Your task to perform on an android device: open wifi settings Image 0: 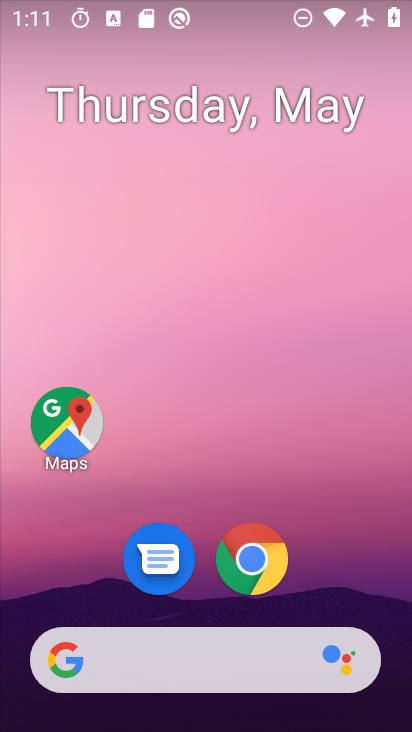
Step 0: drag from (319, 370) to (322, 138)
Your task to perform on an android device: open wifi settings Image 1: 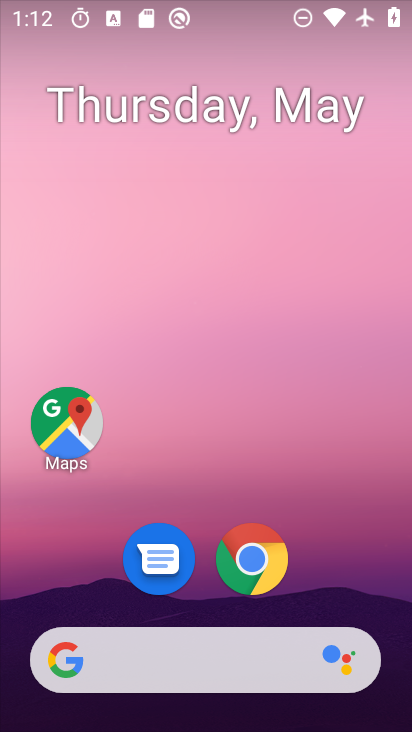
Step 1: drag from (261, 585) to (264, 57)
Your task to perform on an android device: open wifi settings Image 2: 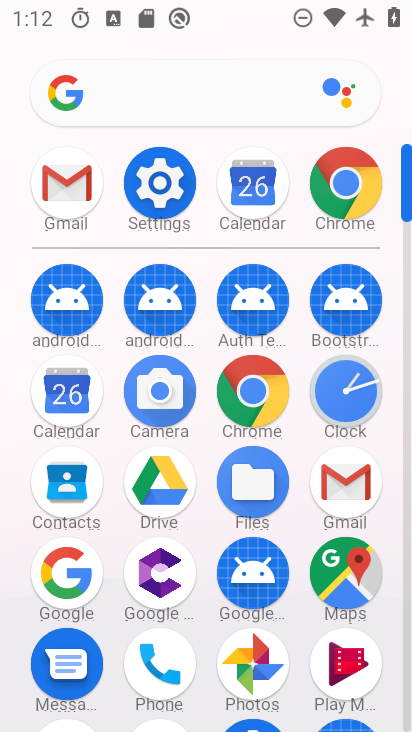
Step 2: click (179, 207)
Your task to perform on an android device: open wifi settings Image 3: 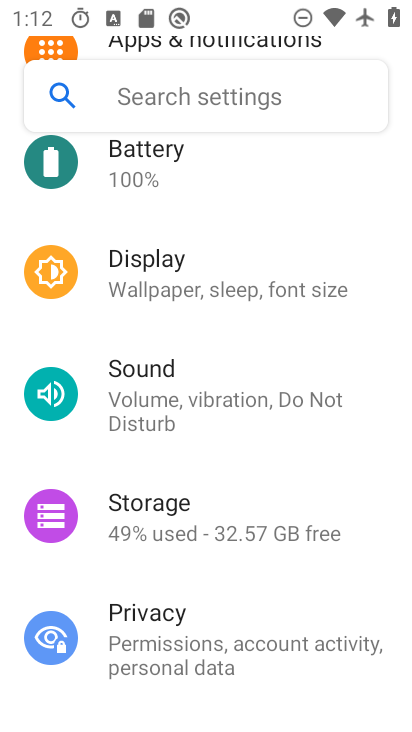
Step 3: drag from (179, 207) to (144, 536)
Your task to perform on an android device: open wifi settings Image 4: 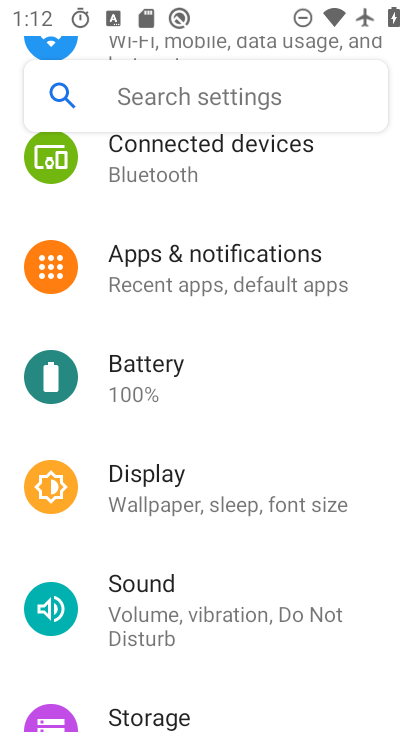
Step 4: drag from (276, 251) to (214, 721)
Your task to perform on an android device: open wifi settings Image 5: 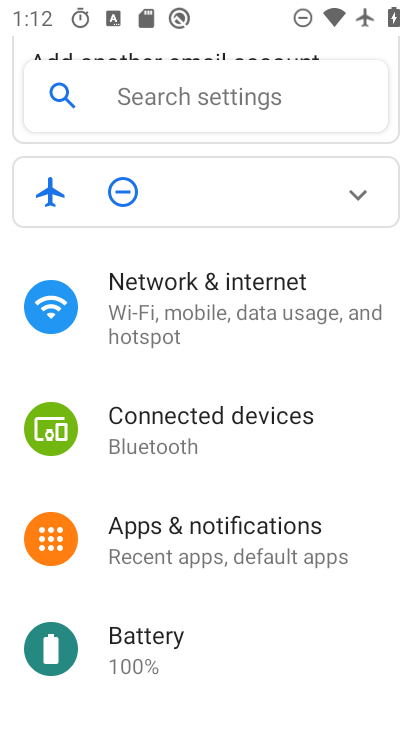
Step 5: click (288, 332)
Your task to perform on an android device: open wifi settings Image 6: 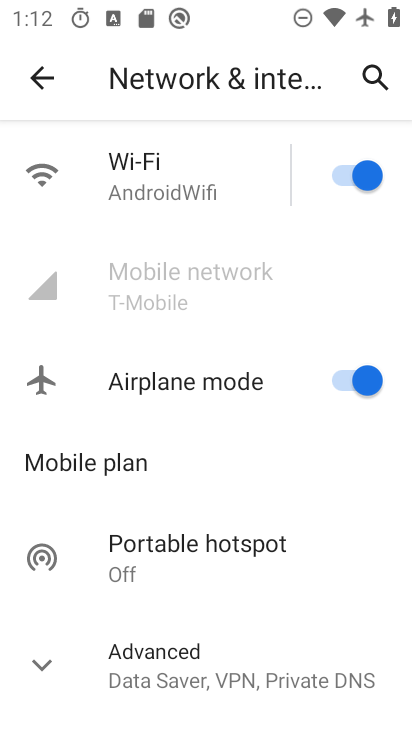
Step 6: click (174, 189)
Your task to perform on an android device: open wifi settings Image 7: 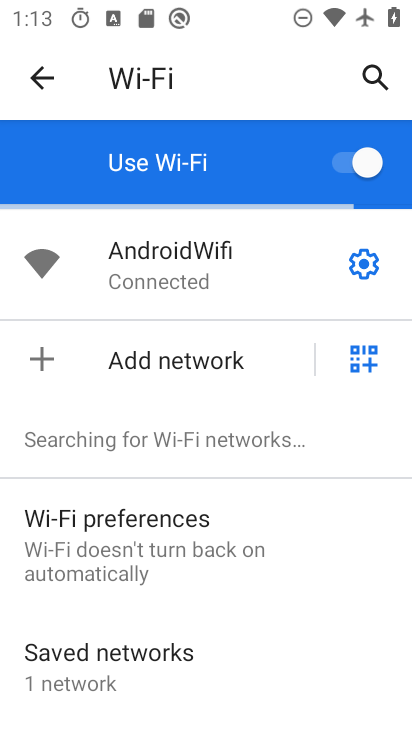
Step 7: task complete